Your task to perform on an android device: allow cookies in the chrome app Image 0: 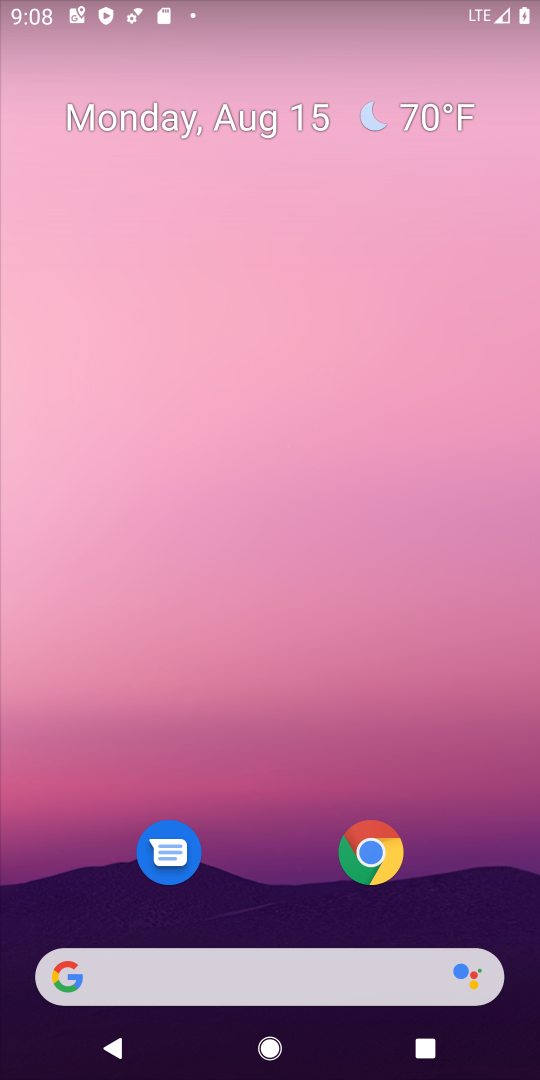
Step 0: click (372, 860)
Your task to perform on an android device: allow cookies in the chrome app Image 1: 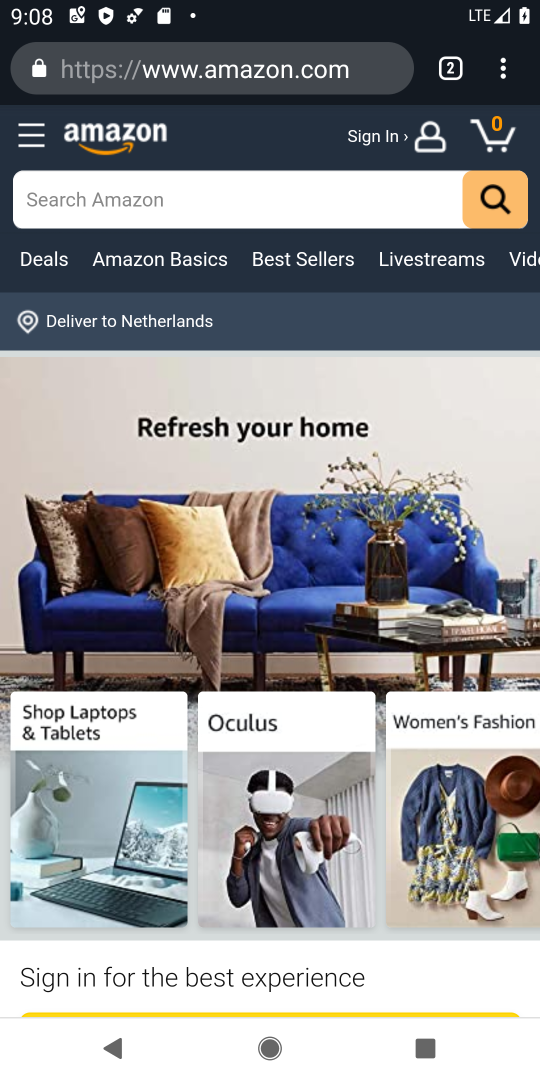
Step 1: drag from (506, 67) to (280, 916)
Your task to perform on an android device: allow cookies in the chrome app Image 2: 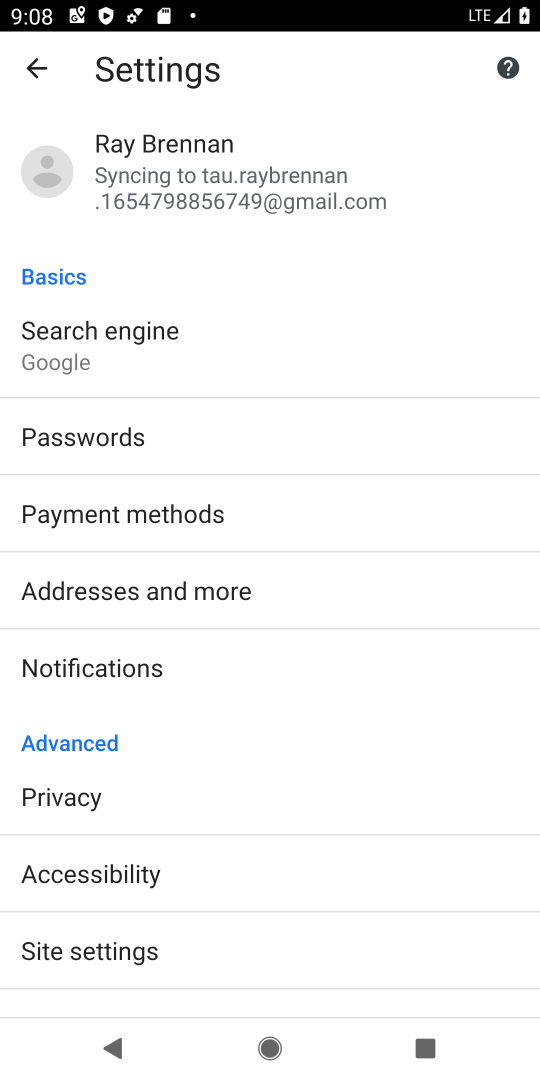
Step 2: drag from (129, 751) to (250, 571)
Your task to perform on an android device: allow cookies in the chrome app Image 3: 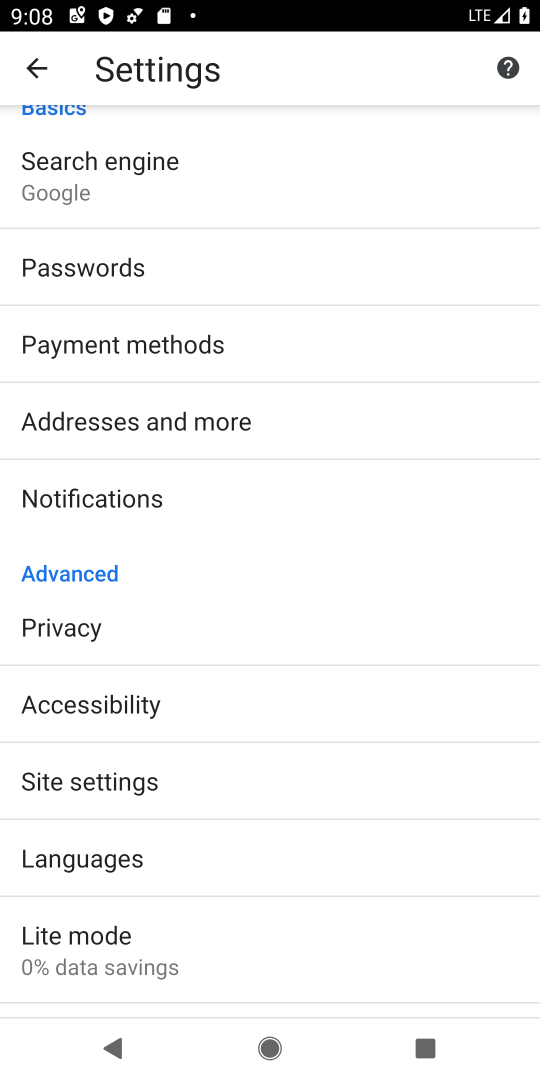
Step 3: click (150, 777)
Your task to perform on an android device: allow cookies in the chrome app Image 4: 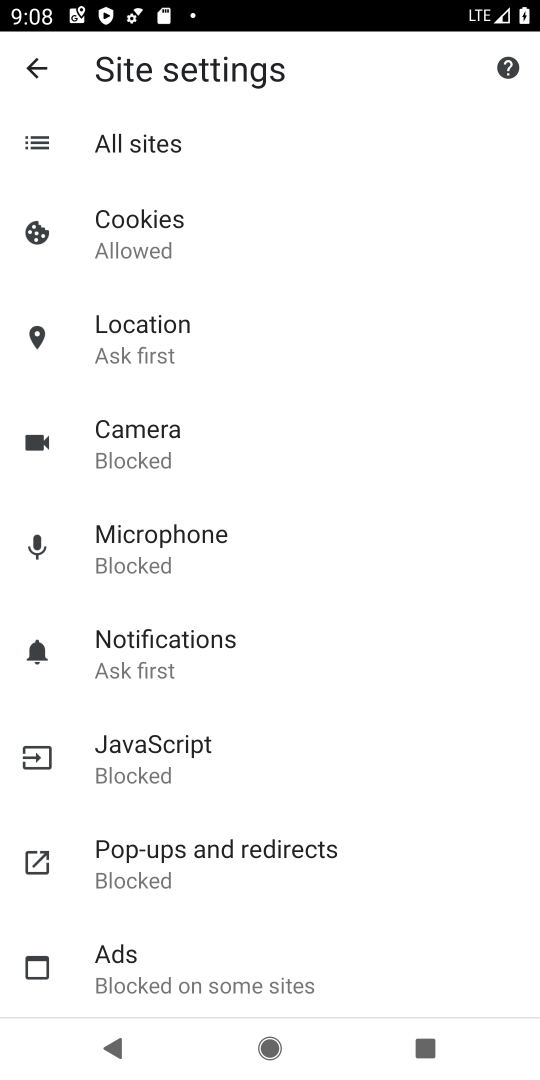
Step 4: click (171, 259)
Your task to perform on an android device: allow cookies in the chrome app Image 5: 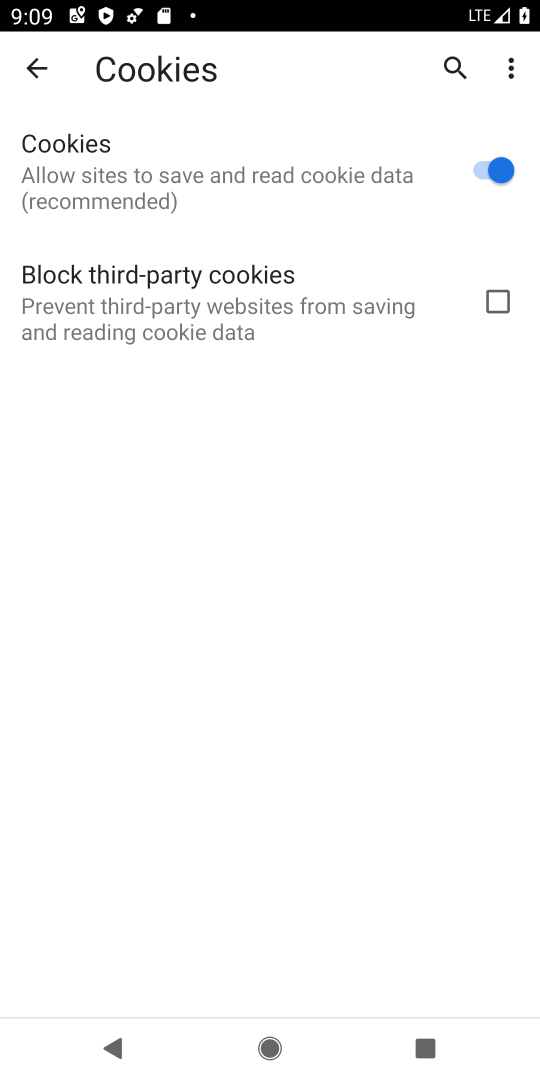
Step 5: click (481, 301)
Your task to perform on an android device: allow cookies in the chrome app Image 6: 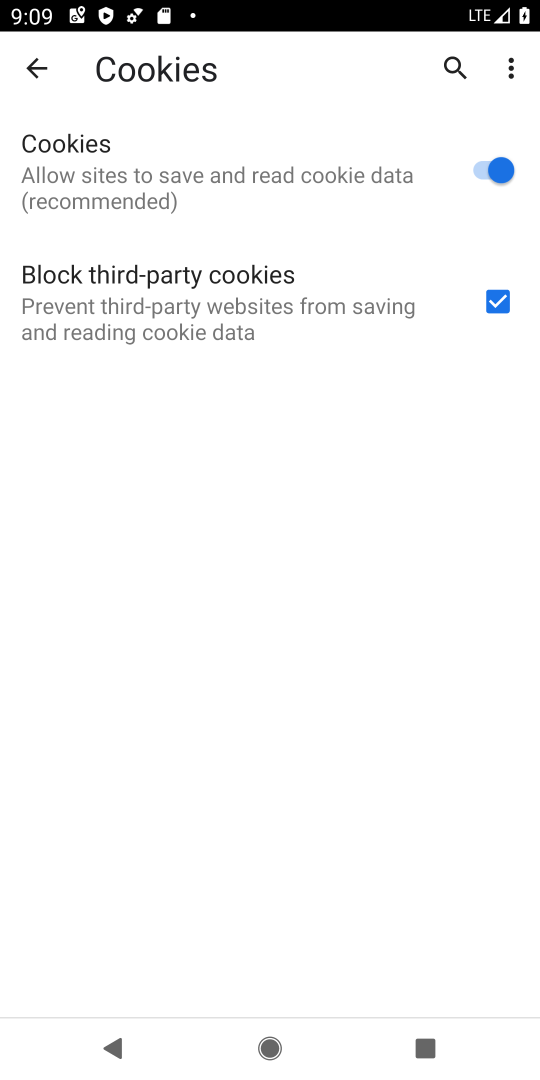
Step 6: task complete